Your task to perform on an android device: turn on notifications settings in the gmail app Image 0: 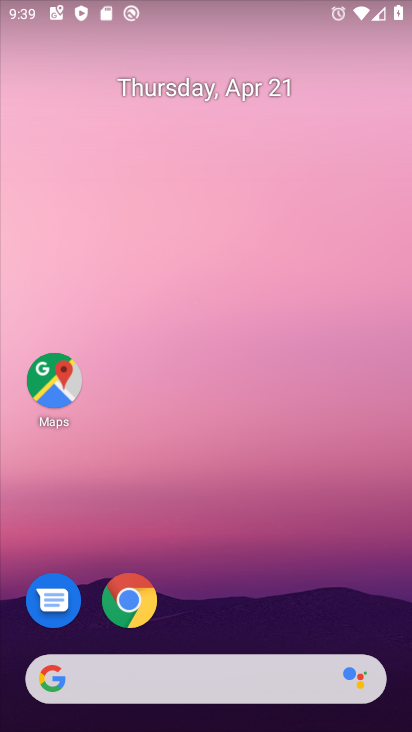
Step 0: drag from (222, 597) to (256, 52)
Your task to perform on an android device: turn on notifications settings in the gmail app Image 1: 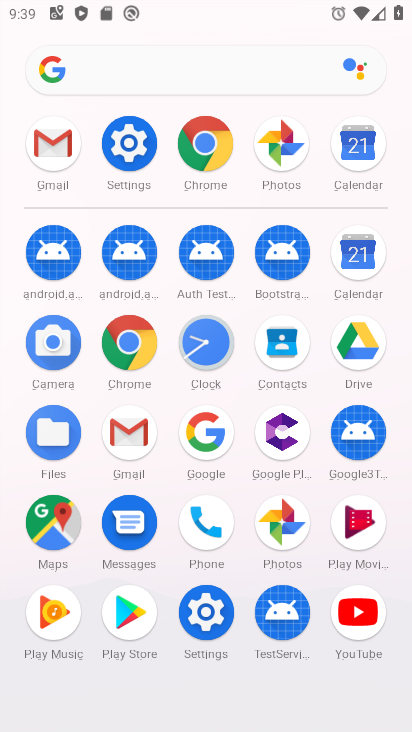
Step 1: click (54, 143)
Your task to perform on an android device: turn on notifications settings in the gmail app Image 2: 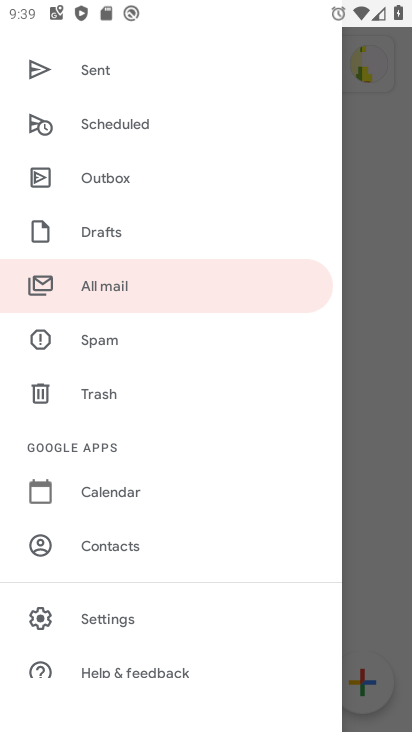
Step 2: drag from (147, 523) to (178, 255)
Your task to perform on an android device: turn on notifications settings in the gmail app Image 3: 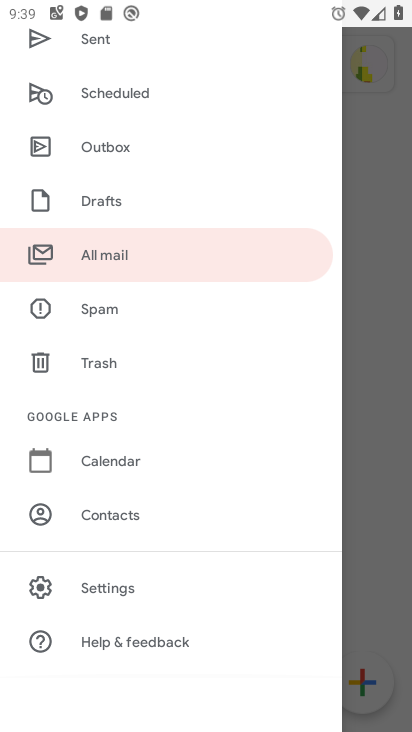
Step 3: click (90, 587)
Your task to perform on an android device: turn on notifications settings in the gmail app Image 4: 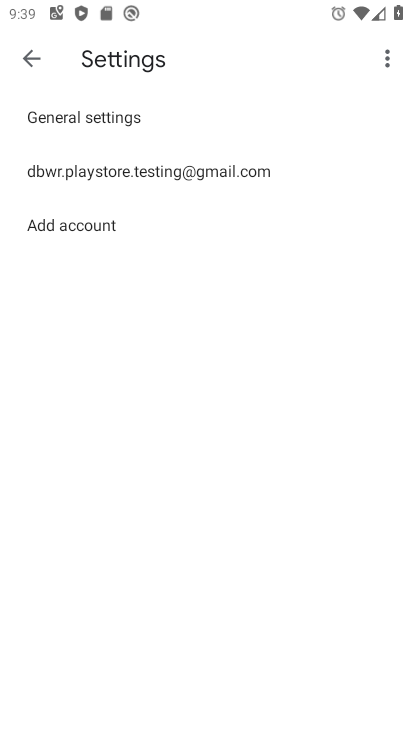
Step 4: click (172, 171)
Your task to perform on an android device: turn on notifications settings in the gmail app Image 5: 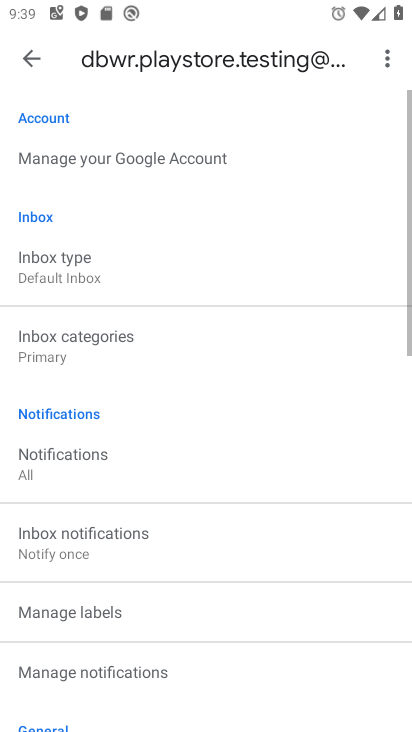
Step 5: drag from (185, 534) to (255, 80)
Your task to perform on an android device: turn on notifications settings in the gmail app Image 6: 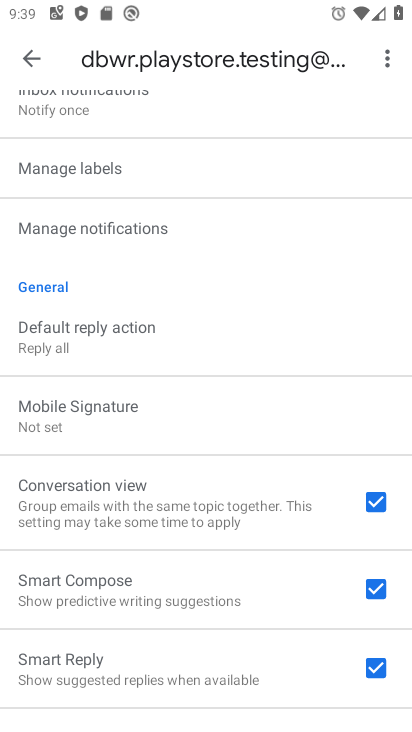
Step 6: drag from (105, 205) to (108, 575)
Your task to perform on an android device: turn on notifications settings in the gmail app Image 7: 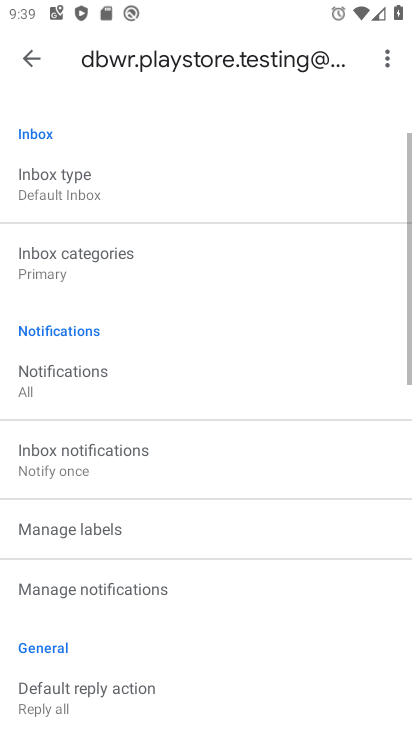
Step 7: click (96, 401)
Your task to perform on an android device: turn on notifications settings in the gmail app Image 8: 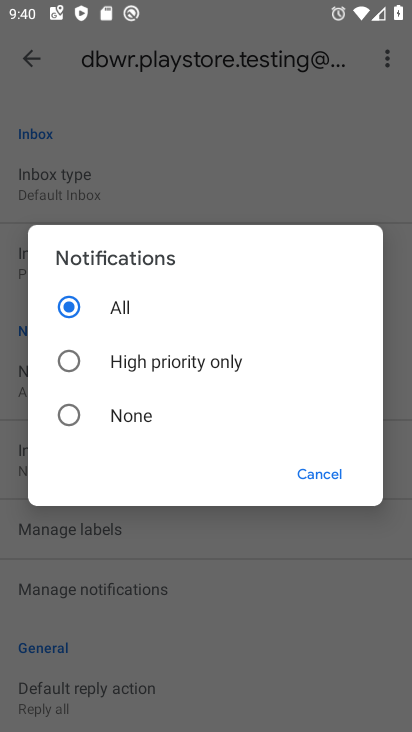
Step 8: task complete